Your task to perform on an android device: turn notification dots off Image 0: 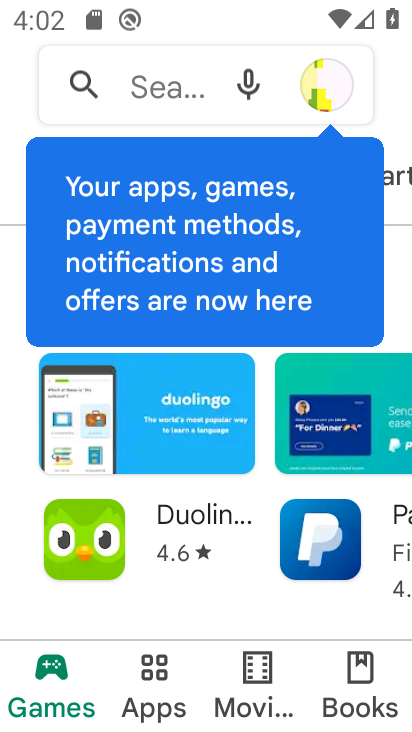
Step 0: press home button
Your task to perform on an android device: turn notification dots off Image 1: 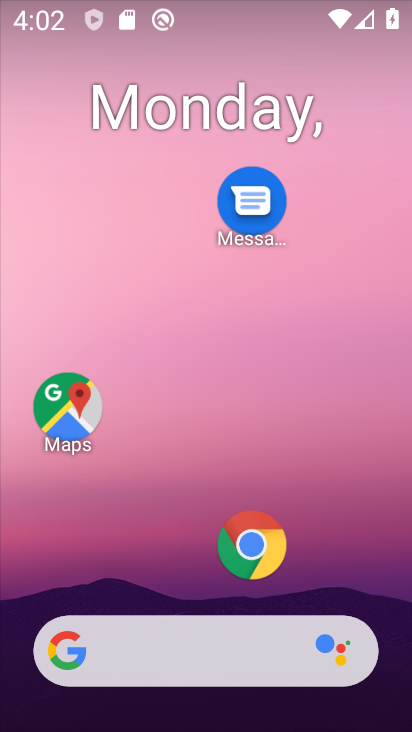
Step 1: drag from (199, 597) to (242, 40)
Your task to perform on an android device: turn notification dots off Image 2: 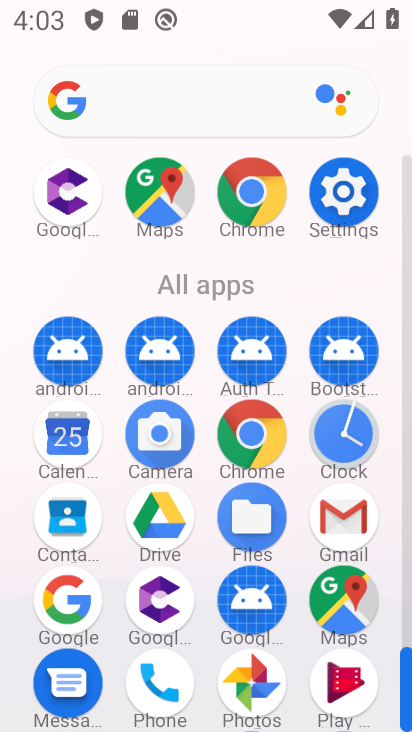
Step 2: click (342, 184)
Your task to perform on an android device: turn notification dots off Image 3: 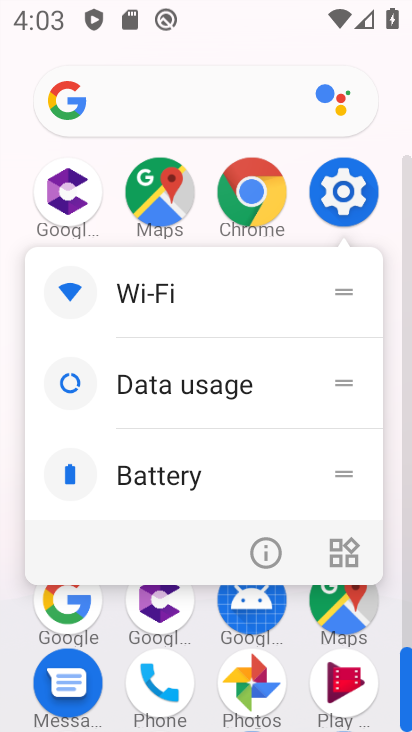
Step 3: click (342, 185)
Your task to perform on an android device: turn notification dots off Image 4: 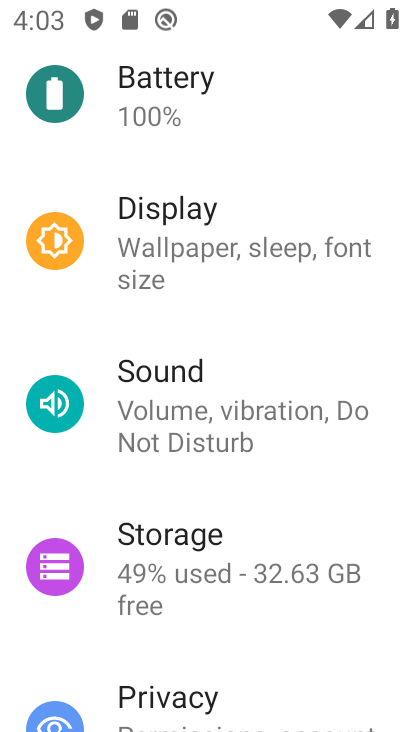
Step 4: drag from (245, 135) to (287, 646)
Your task to perform on an android device: turn notification dots off Image 5: 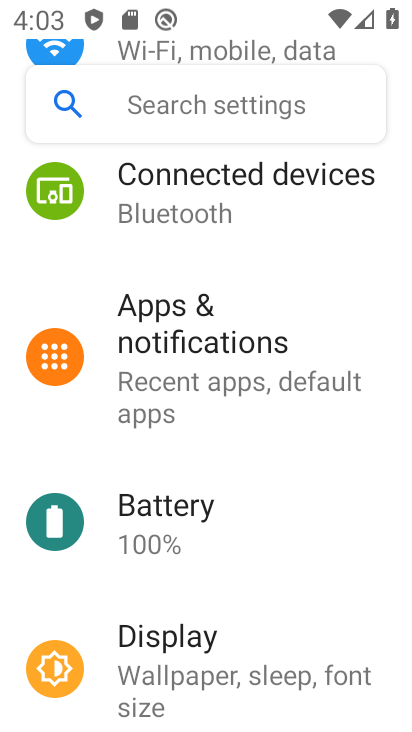
Step 5: click (301, 330)
Your task to perform on an android device: turn notification dots off Image 6: 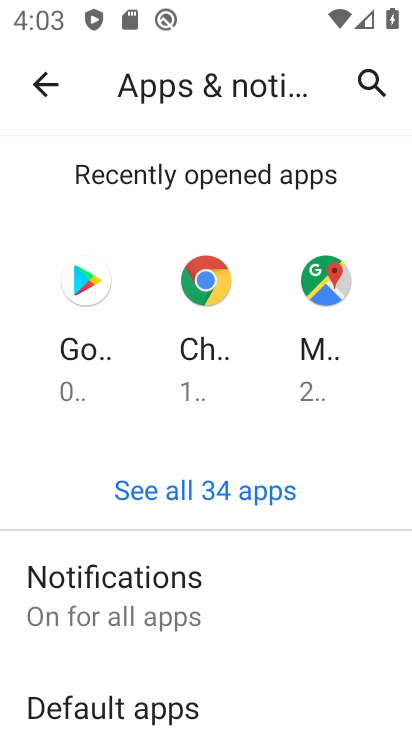
Step 6: click (208, 597)
Your task to perform on an android device: turn notification dots off Image 7: 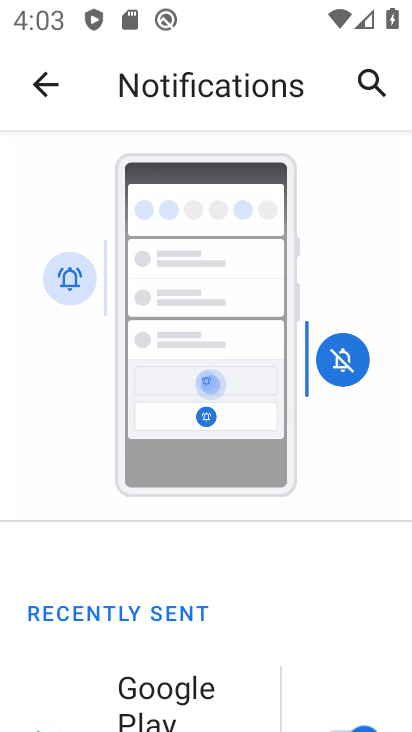
Step 7: drag from (263, 713) to (344, 116)
Your task to perform on an android device: turn notification dots off Image 8: 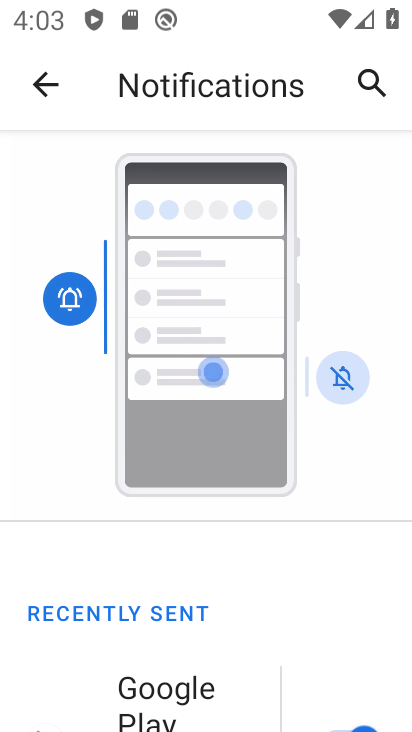
Step 8: drag from (259, 682) to (283, 46)
Your task to perform on an android device: turn notification dots off Image 9: 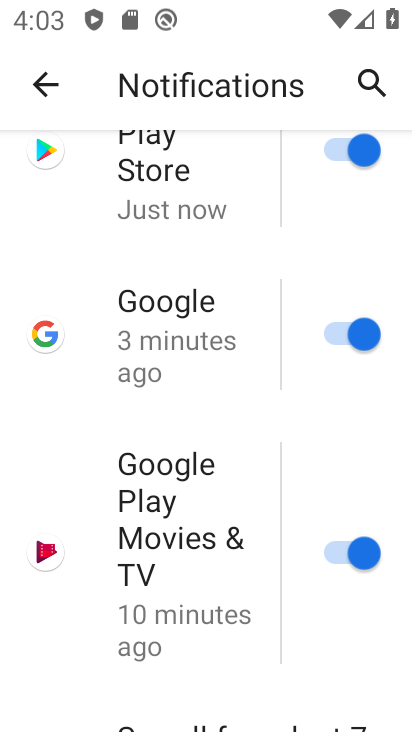
Step 9: drag from (241, 669) to (306, 57)
Your task to perform on an android device: turn notification dots off Image 10: 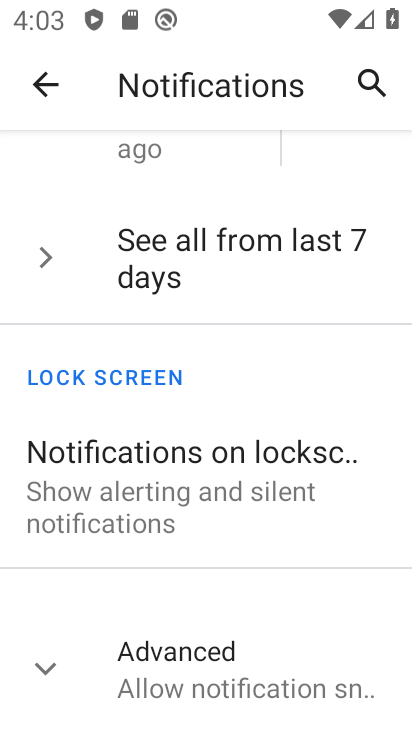
Step 10: click (42, 656)
Your task to perform on an android device: turn notification dots off Image 11: 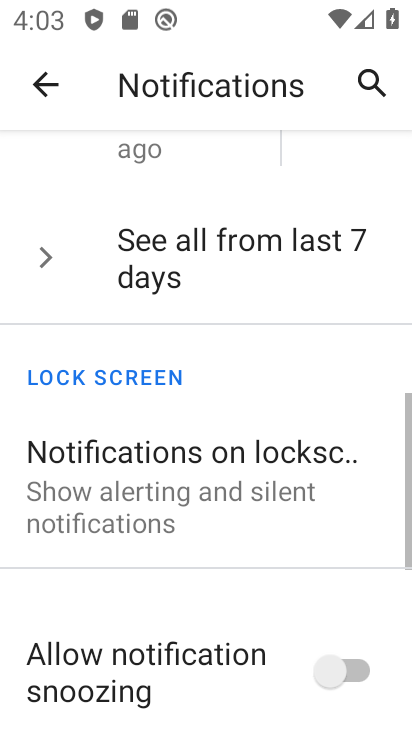
Step 11: drag from (217, 664) to (284, 66)
Your task to perform on an android device: turn notification dots off Image 12: 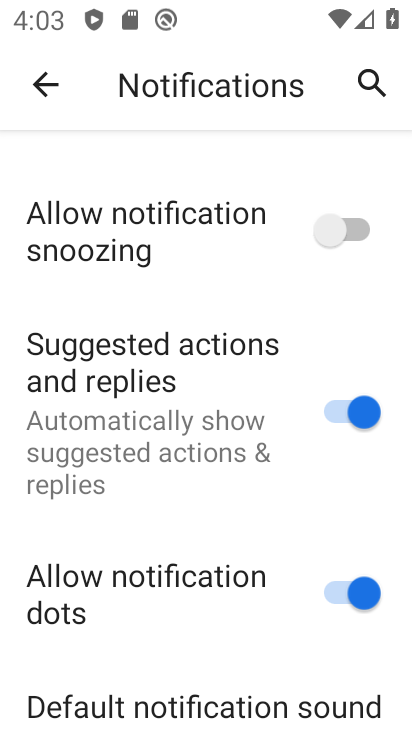
Step 12: drag from (213, 664) to (246, 164)
Your task to perform on an android device: turn notification dots off Image 13: 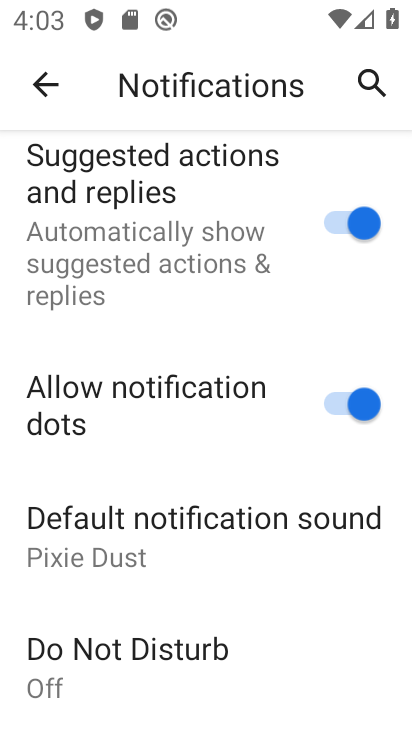
Step 13: click (347, 391)
Your task to perform on an android device: turn notification dots off Image 14: 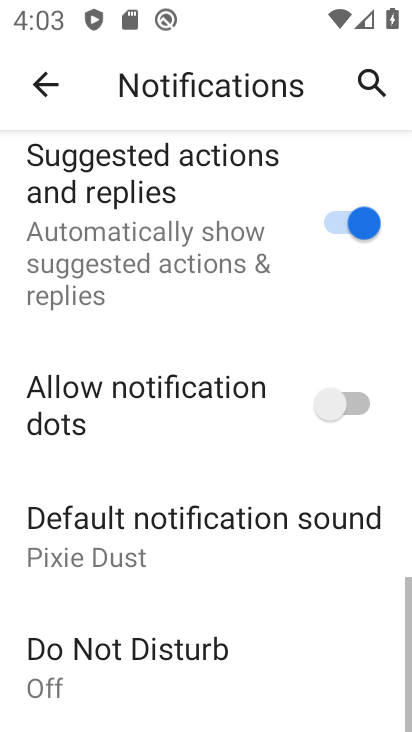
Step 14: task complete